Your task to perform on an android device: open the mobile data screen to see how much data has been used Image 0: 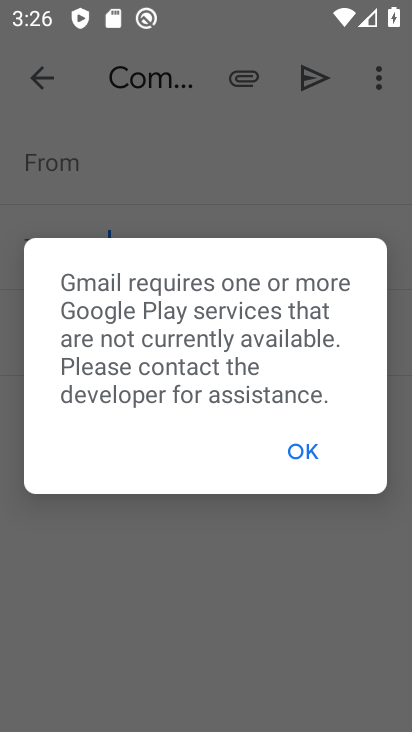
Step 0: press home button
Your task to perform on an android device: open the mobile data screen to see how much data has been used Image 1: 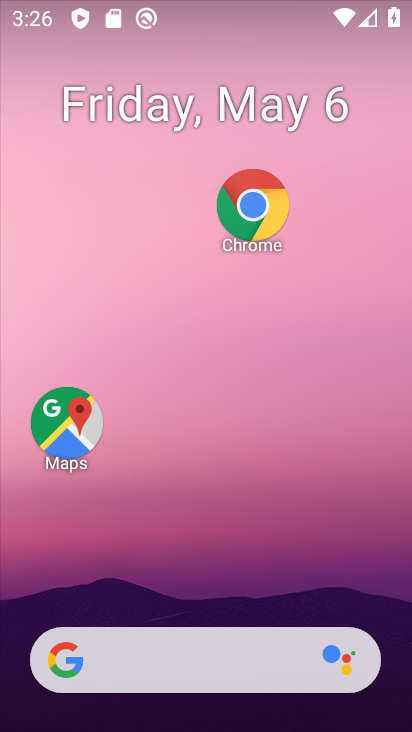
Step 1: drag from (196, 632) to (119, 38)
Your task to perform on an android device: open the mobile data screen to see how much data has been used Image 2: 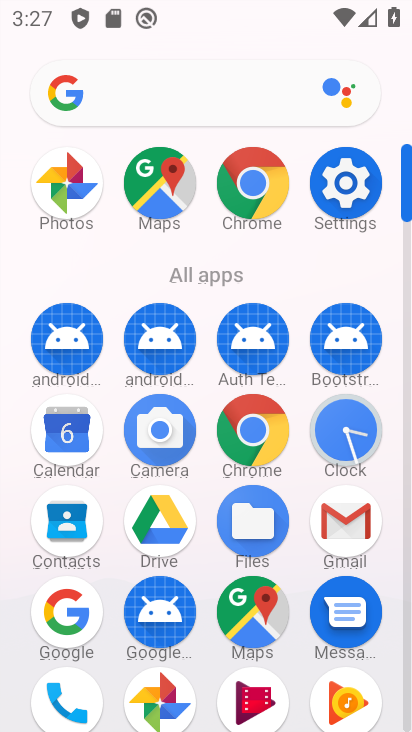
Step 2: click (330, 186)
Your task to perform on an android device: open the mobile data screen to see how much data has been used Image 3: 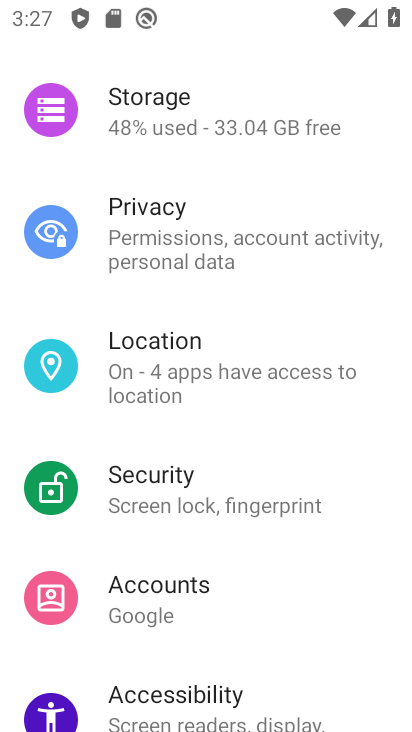
Step 3: drag from (190, 115) to (189, 612)
Your task to perform on an android device: open the mobile data screen to see how much data has been used Image 4: 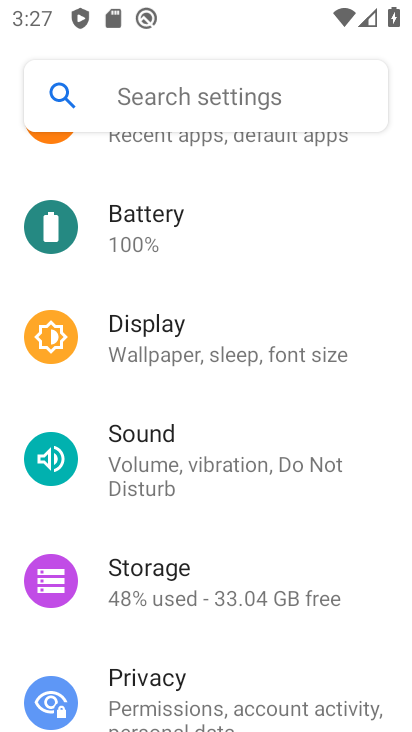
Step 4: drag from (244, 283) to (230, 688)
Your task to perform on an android device: open the mobile data screen to see how much data has been used Image 5: 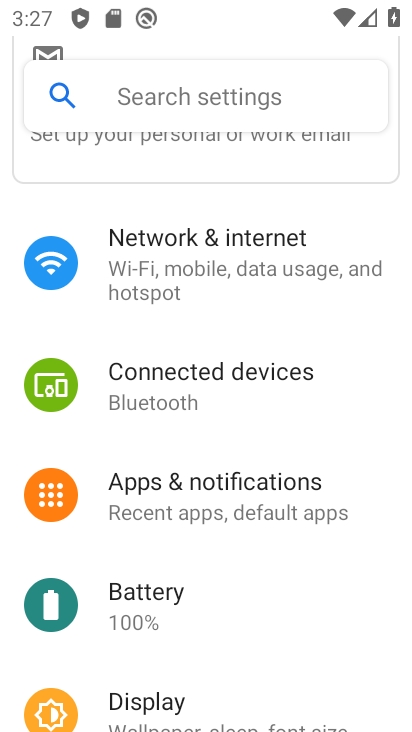
Step 5: click (183, 257)
Your task to perform on an android device: open the mobile data screen to see how much data has been used Image 6: 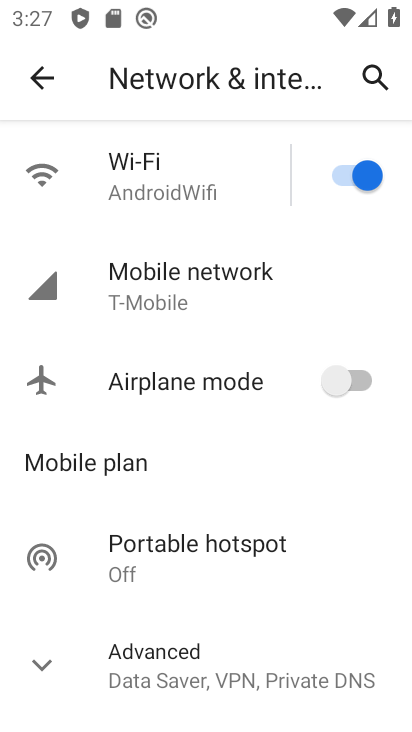
Step 6: click (231, 284)
Your task to perform on an android device: open the mobile data screen to see how much data has been used Image 7: 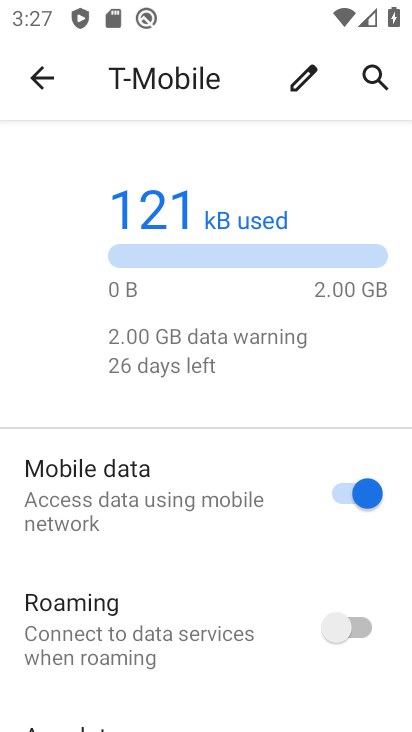
Step 7: task complete